Your task to perform on an android device: stop showing notifications on the lock screen Image 0: 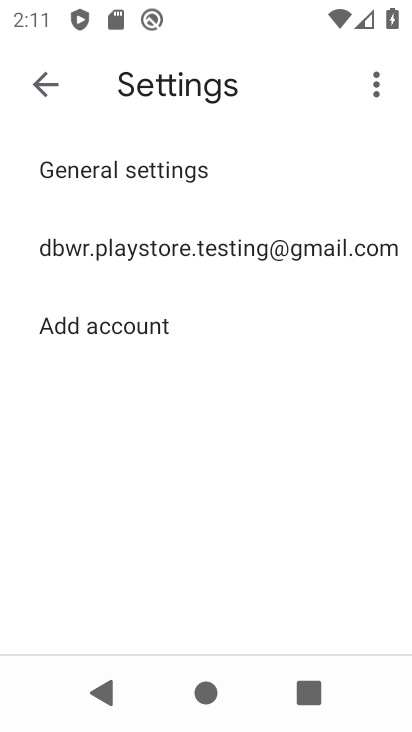
Step 0: press home button
Your task to perform on an android device: stop showing notifications on the lock screen Image 1: 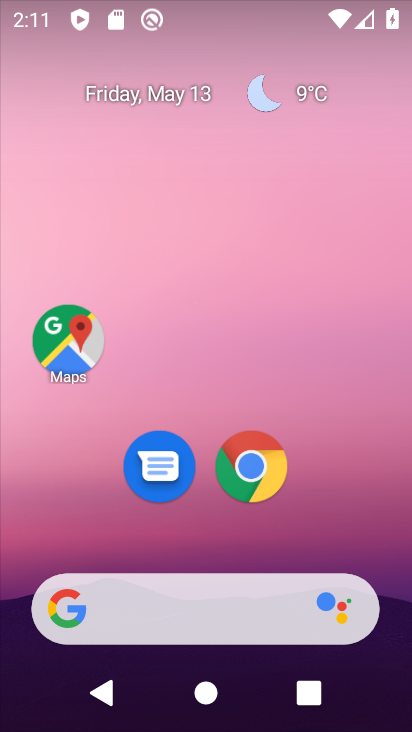
Step 1: drag from (254, 516) to (301, 115)
Your task to perform on an android device: stop showing notifications on the lock screen Image 2: 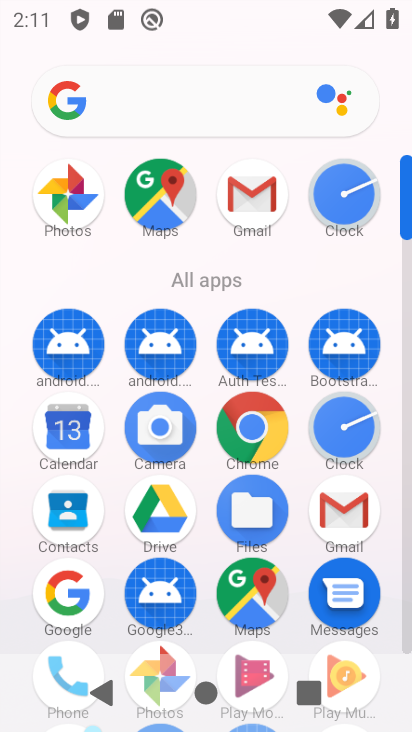
Step 2: drag from (143, 537) to (191, 251)
Your task to perform on an android device: stop showing notifications on the lock screen Image 3: 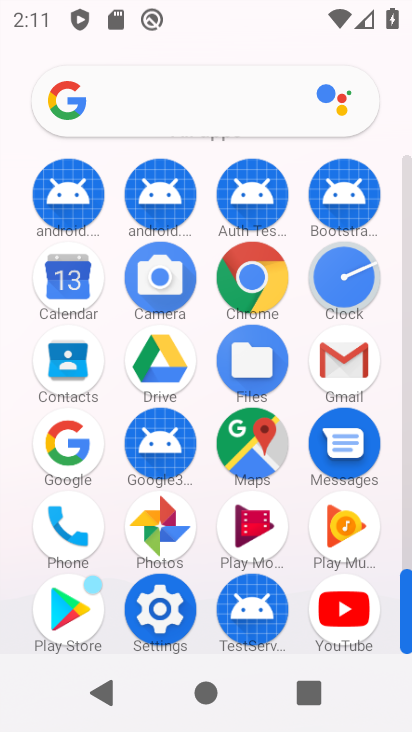
Step 3: drag from (165, 610) to (118, 173)
Your task to perform on an android device: stop showing notifications on the lock screen Image 4: 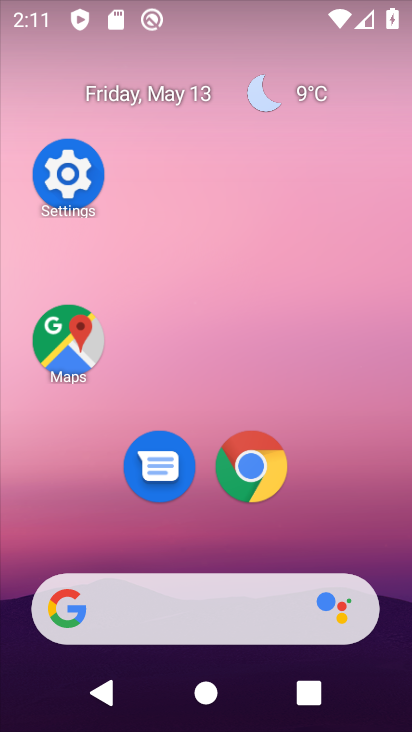
Step 4: click (33, 162)
Your task to perform on an android device: stop showing notifications on the lock screen Image 5: 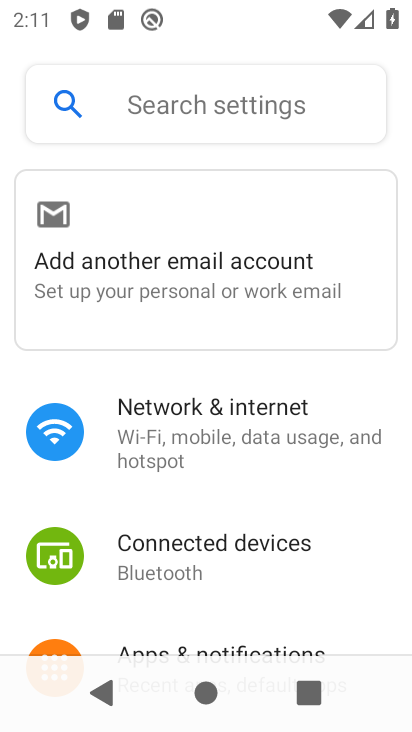
Step 5: drag from (242, 590) to (227, 290)
Your task to perform on an android device: stop showing notifications on the lock screen Image 6: 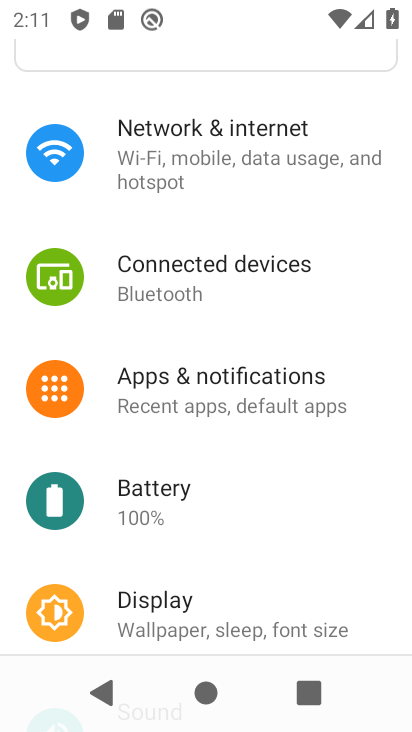
Step 6: click (238, 377)
Your task to perform on an android device: stop showing notifications on the lock screen Image 7: 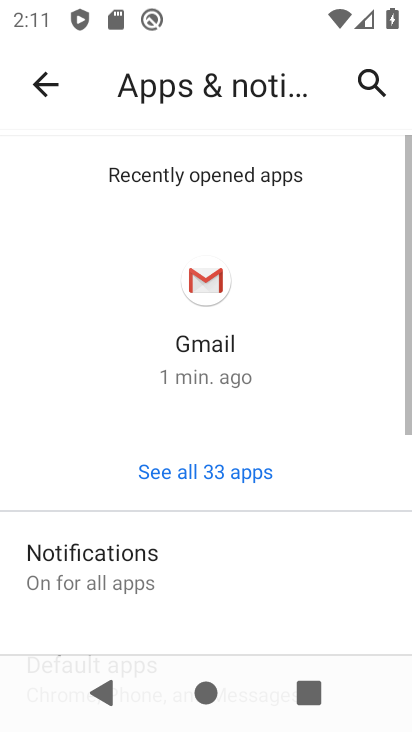
Step 7: drag from (219, 584) to (227, 219)
Your task to perform on an android device: stop showing notifications on the lock screen Image 8: 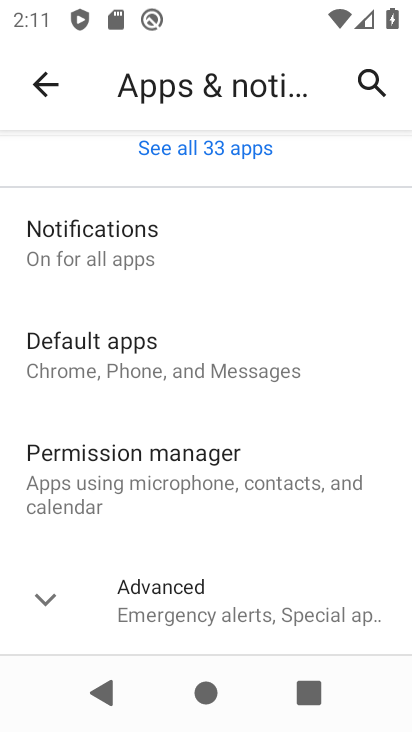
Step 8: click (209, 587)
Your task to perform on an android device: stop showing notifications on the lock screen Image 9: 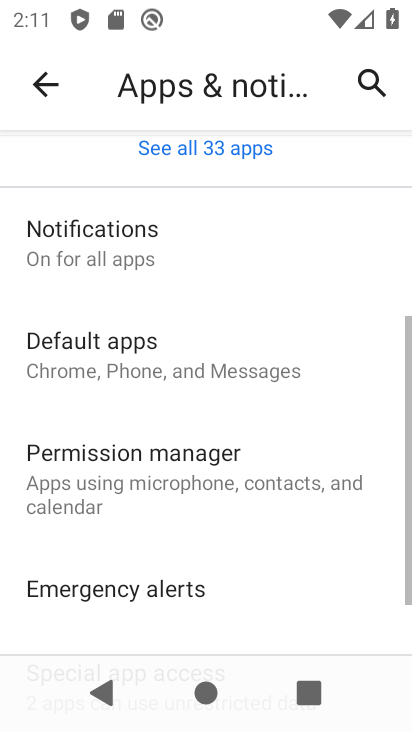
Step 9: drag from (200, 545) to (233, 260)
Your task to perform on an android device: stop showing notifications on the lock screen Image 10: 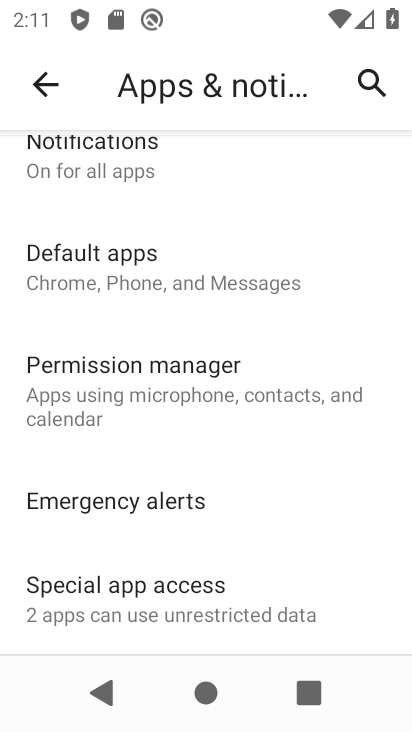
Step 10: click (182, 167)
Your task to perform on an android device: stop showing notifications on the lock screen Image 11: 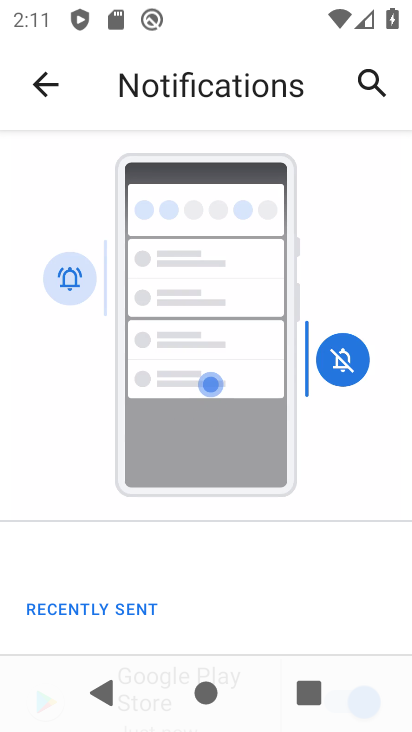
Step 11: drag from (225, 631) to (277, 244)
Your task to perform on an android device: stop showing notifications on the lock screen Image 12: 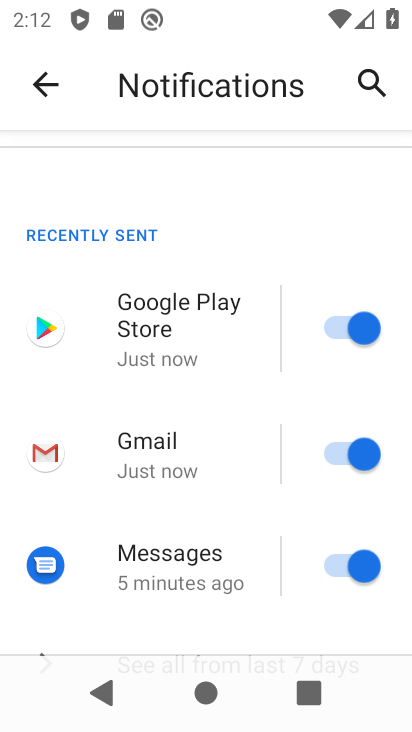
Step 12: drag from (214, 577) to (265, 194)
Your task to perform on an android device: stop showing notifications on the lock screen Image 13: 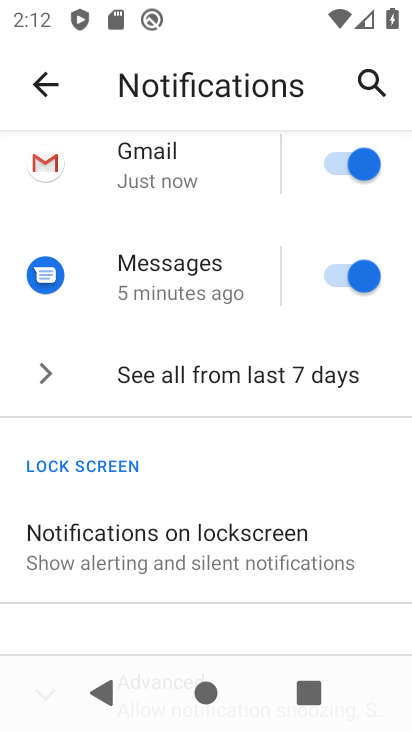
Step 13: click (196, 530)
Your task to perform on an android device: stop showing notifications on the lock screen Image 14: 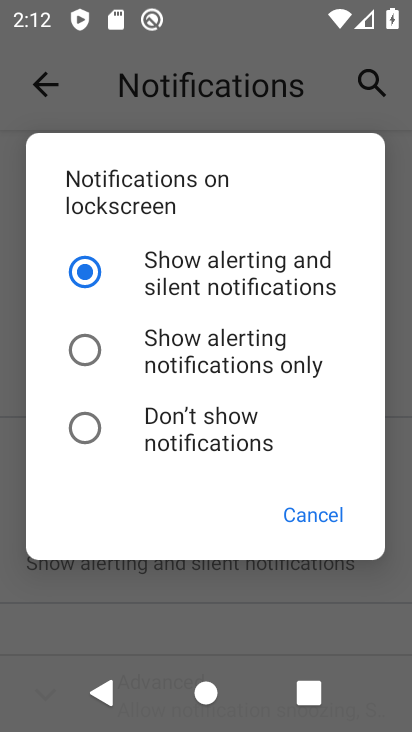
Step 14: click (156, 421)
Your task to perform on an android device: stop showing notifications on the lock screen Image 15: 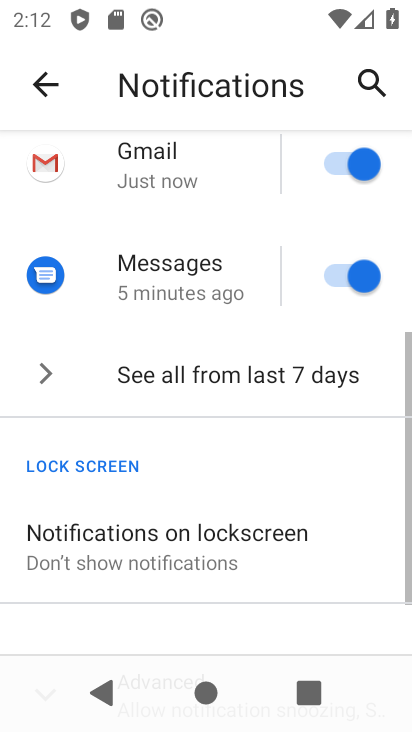
Step 15: task complete